Your task to perform on an android device: set the timer Image 0: 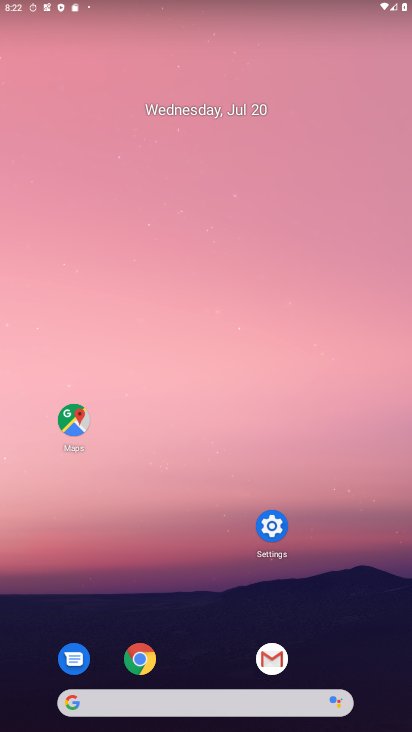
Step 0: drag from (280, 710) to (266, 201)
Your task to perform on an android device: set the timer Image 1: 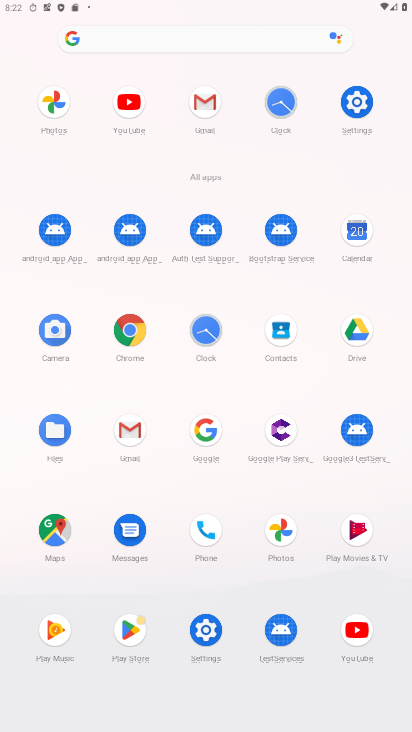
Step 1: click (205, 326)
Your task to perform on an android device: set the timer Image 2: 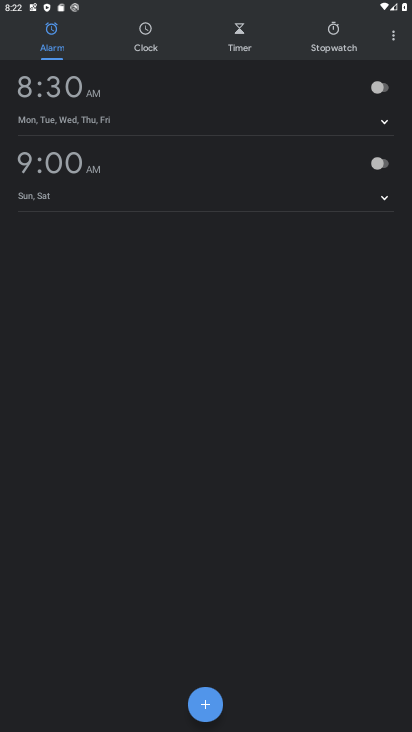
Step 2: click (394, 30)
Your task to perform on an android device: set the timer Image 3: 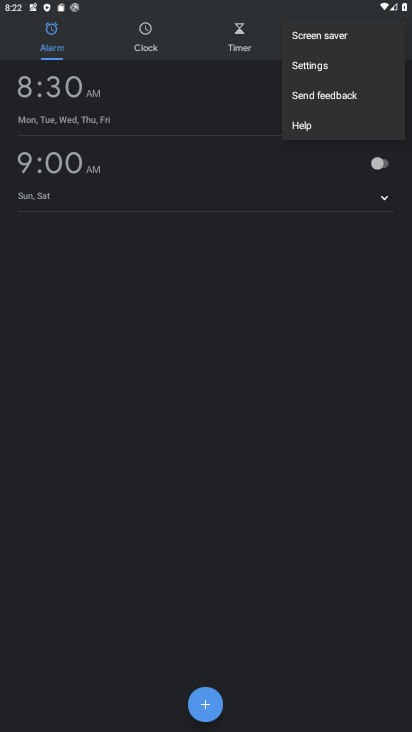
Step 3: click (331, 72)
Your task to perform on an android device: set the timer Image 4: 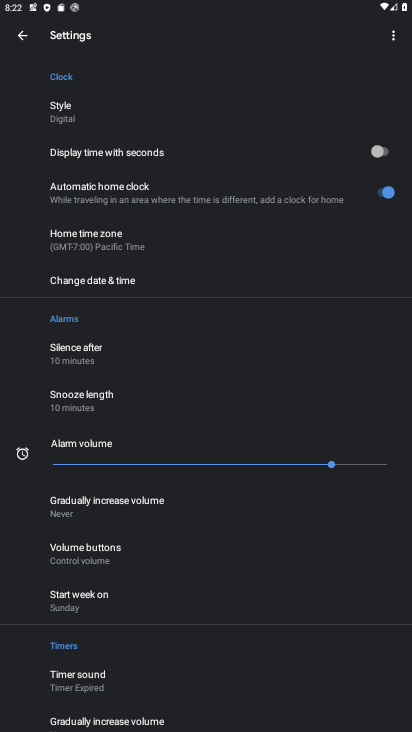
Step 4: click (104, 673)
Your task to perform on an android device: set the timer Image 5: 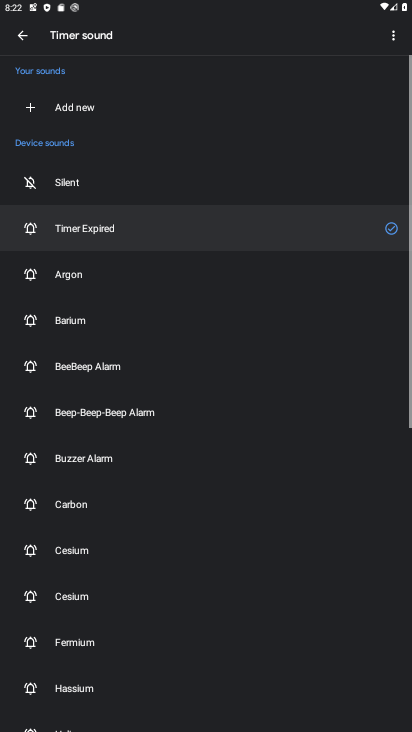
Step 5: click (19, 37)
Your task to perform on an android device: set the timer Image 6: 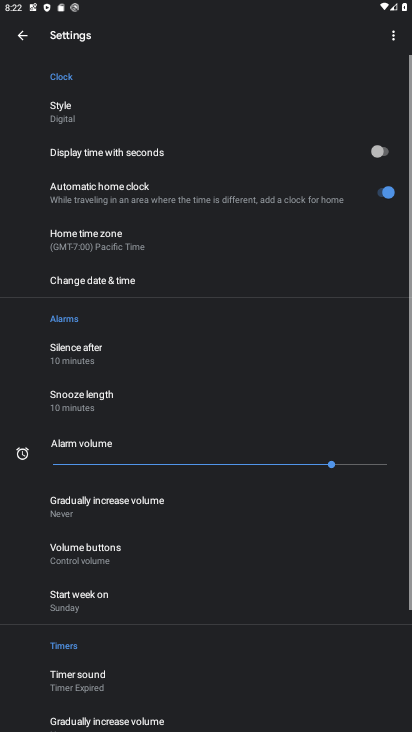
Step 6: click (19, 37)
Your task to perform on an android device: set the timer Image 7: 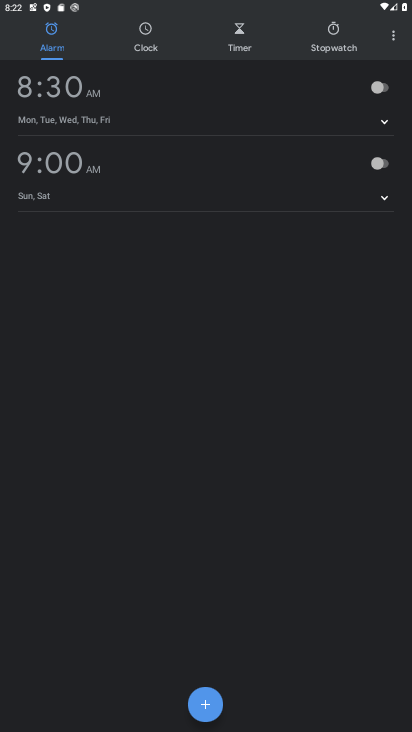
Step 7: click (233, 36)
Your task to perform on an android device: set the timer Image 8: 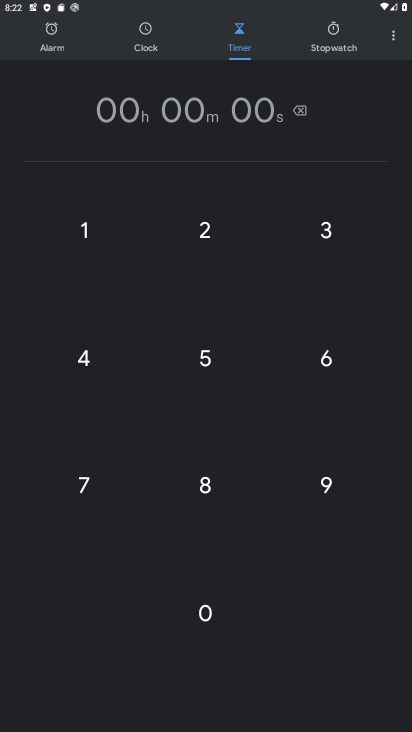
Step 8: click (213, 256)
Your task to perform on an android device: set the timer Image 9: 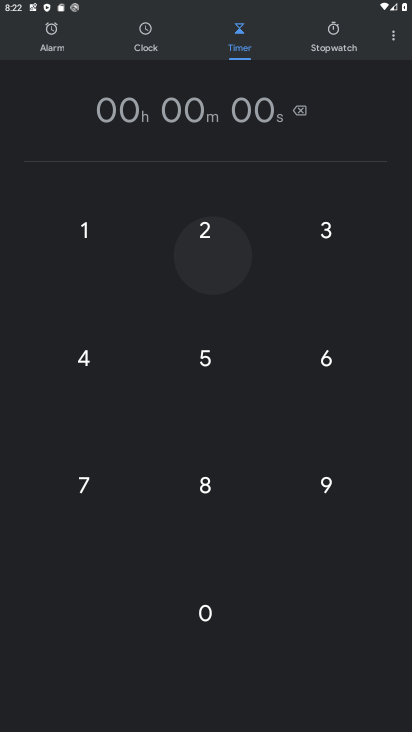
Step 9: click (180, 353)
Your task to perform on an android device: set the timer Image 10: 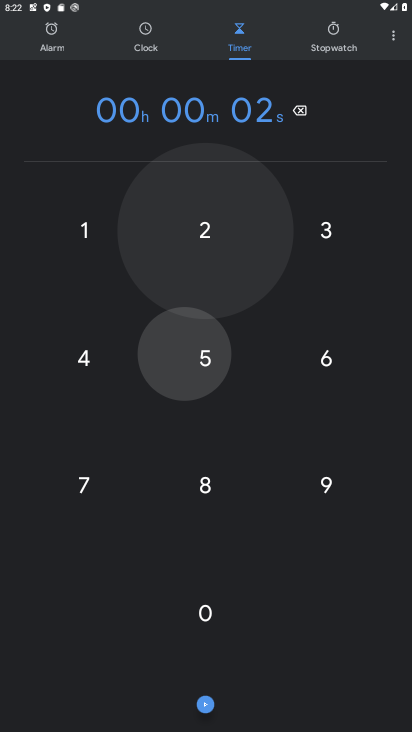
Step 10: click (8, 398)
Your task to perform on an android device: set the timer Image 11: 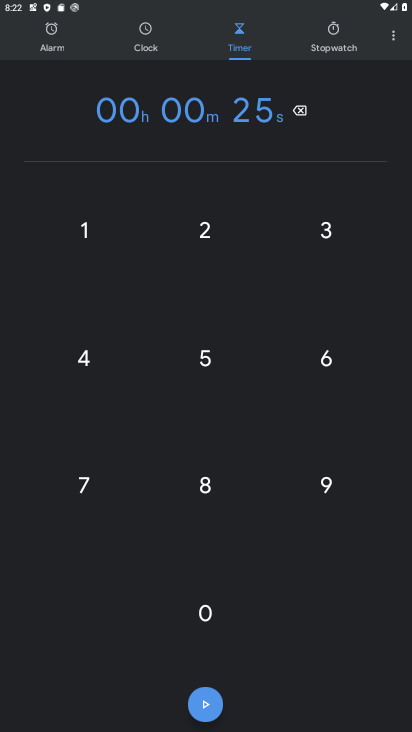
Step 11: click (217, 364)
Your task to perform on an android device: set the timer Image 12: 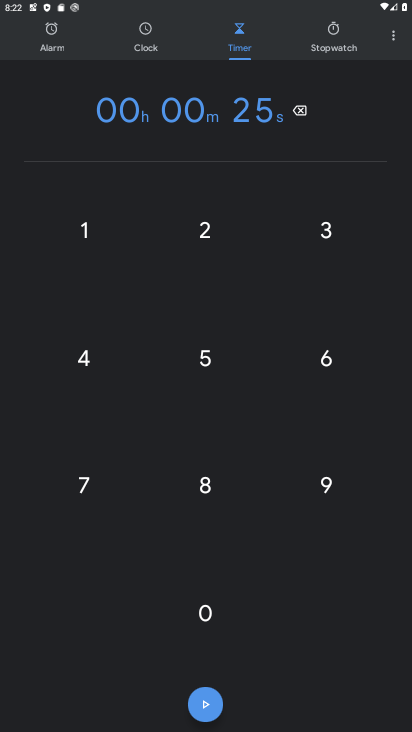
Step 12: task complete